Your task to perform on an android device: Go to notification settings Image 0: 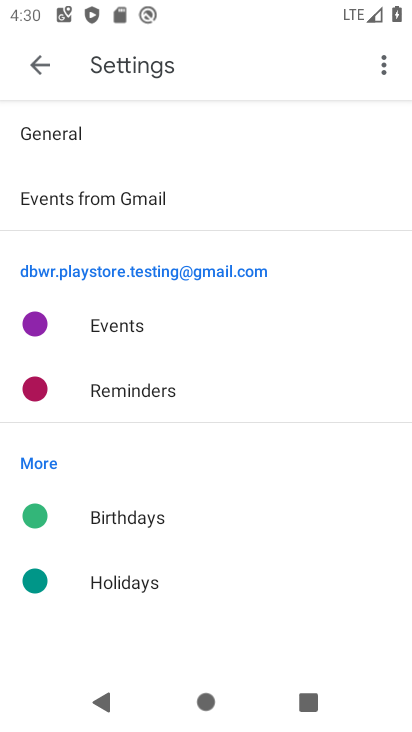
Step 0: press home button
Your task to perform on an android device: Go to notification settings Image 1: 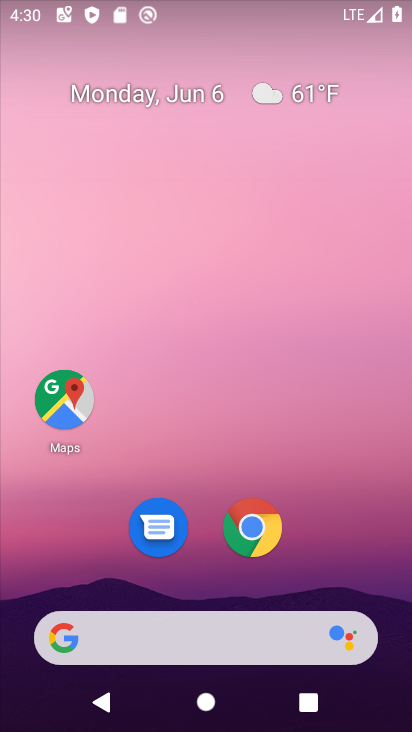
Step 1: drag from (339, 538) to (332, 31)
Your task to perform on an android device: Go to notification settings Image 2: 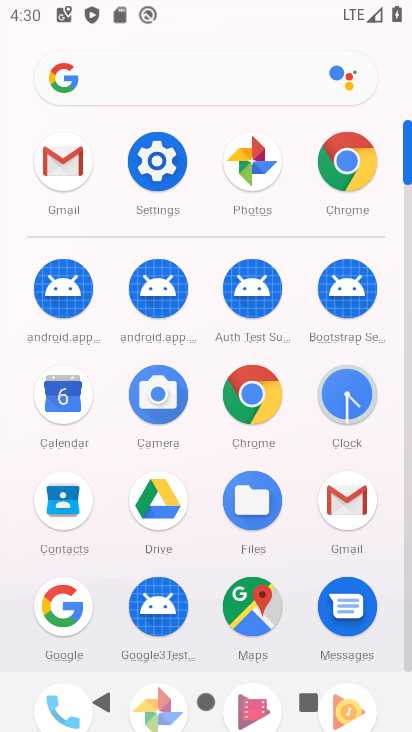
Step 2: click (161, 164)
Your task to perform on an android device: Go to notification settings Image 3: 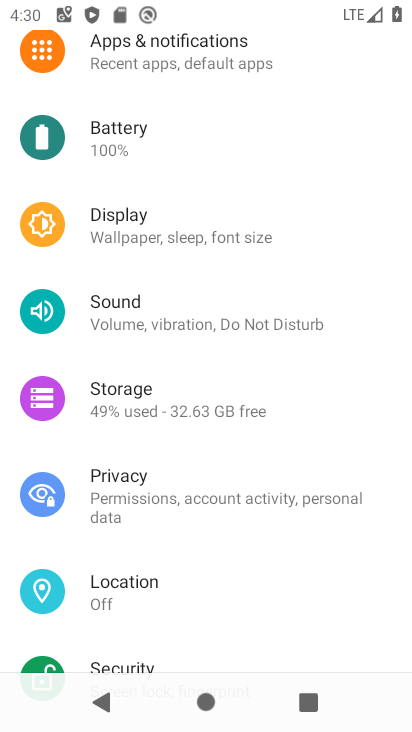
Step 3: click (184, 62)
Your task to perform on an android device: Go to notification settings Image 4: 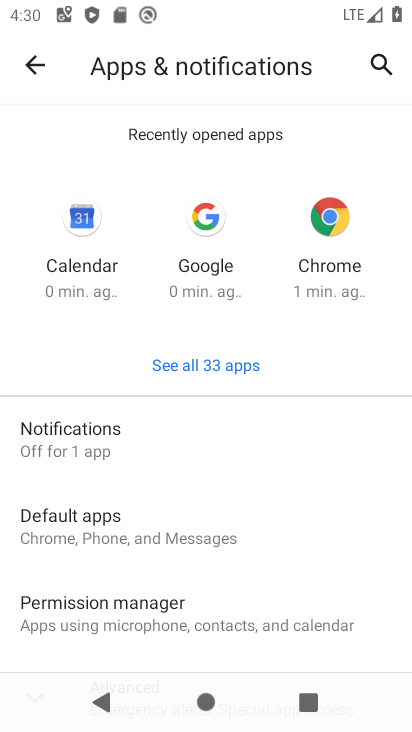
Step 4: task complete